Your task to perform on an android device: toggle pop-ups in chrome Image 0: 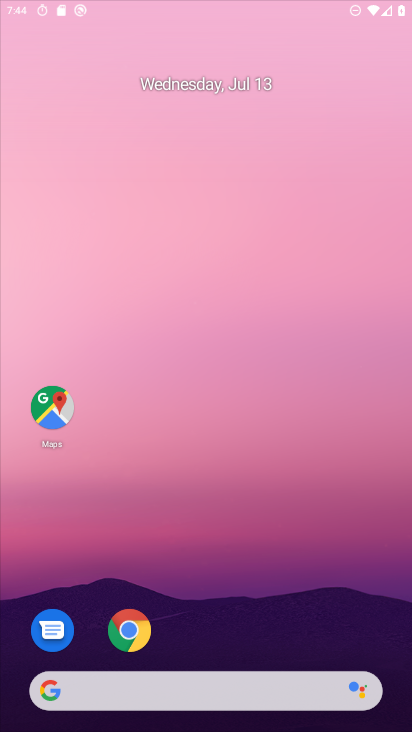
Step 0: click (256, 35)
Your task to perform on an android device: toggle pop-ups in chrome Image 1: 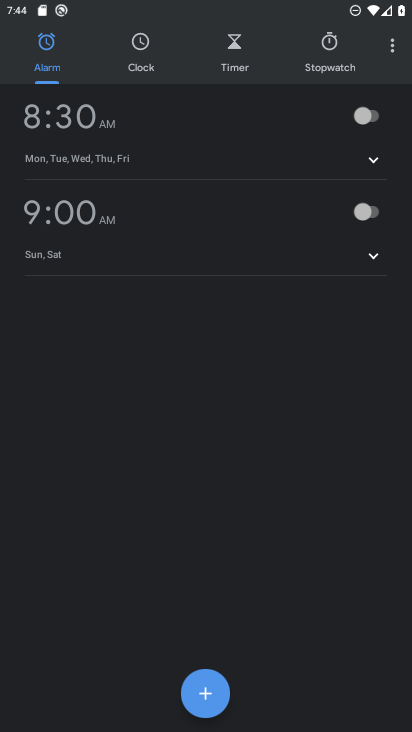
Step 1: press home button
Your task to perform on an android device: toggle pop-ups in chrome Image 2: 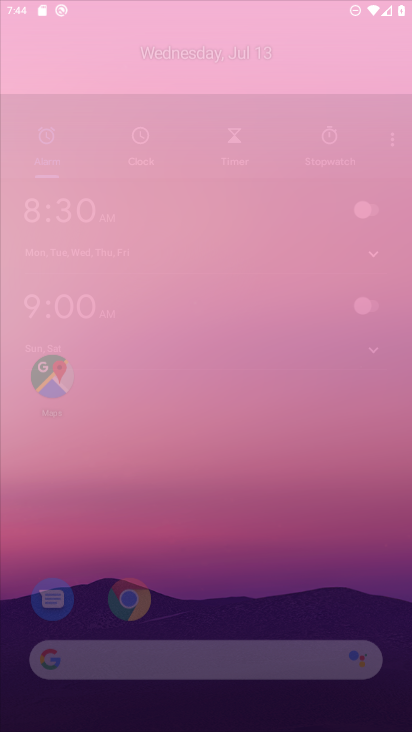
Step 2: drag from (375, 677) to (266, 38)
Your task to perform on an android device: toggle pop-ups in chrome Image 3: 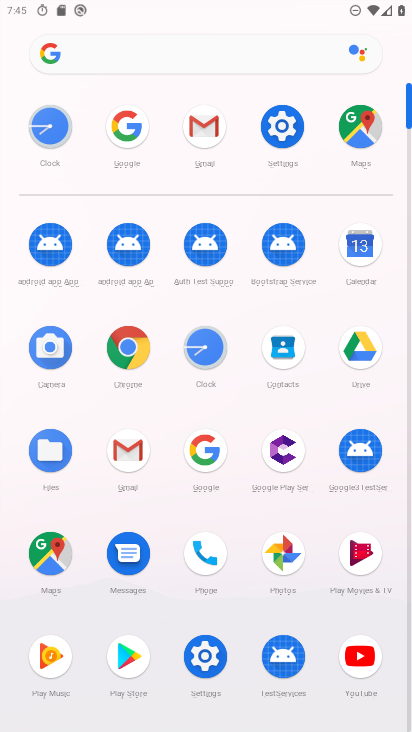
Step 3: click (122, 358)
Your task to perform on an android device: toggle pop-ups in chrome Image 4: 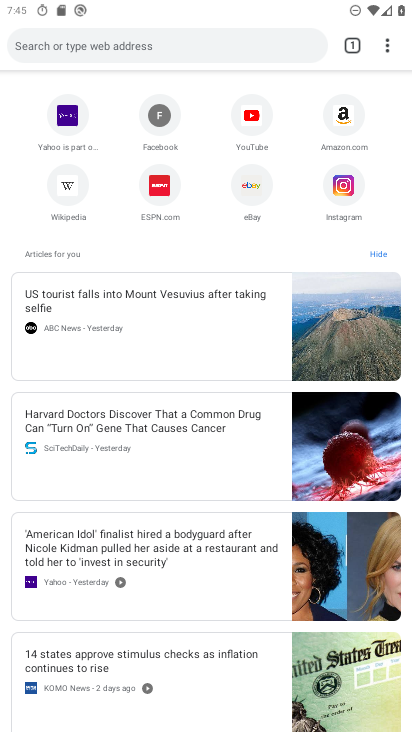
Step 4: click (387, 46)
Your task to perform on an android device: toggle pop-ups in chrome Image 5: 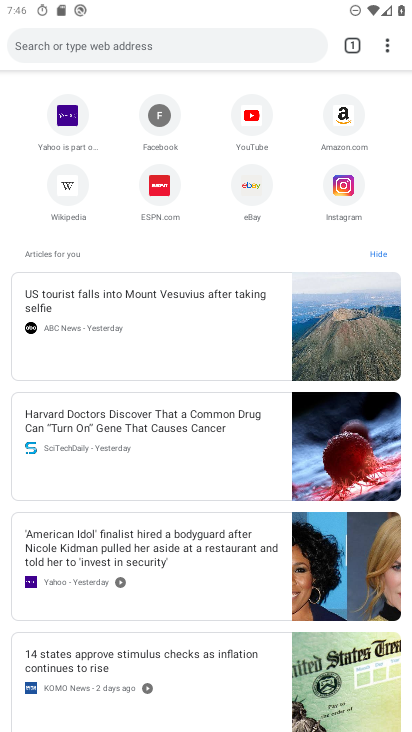
Step 5: click (387, 39)
Your task to perform on an android device: toggle pop-ups in chrome Image 6: 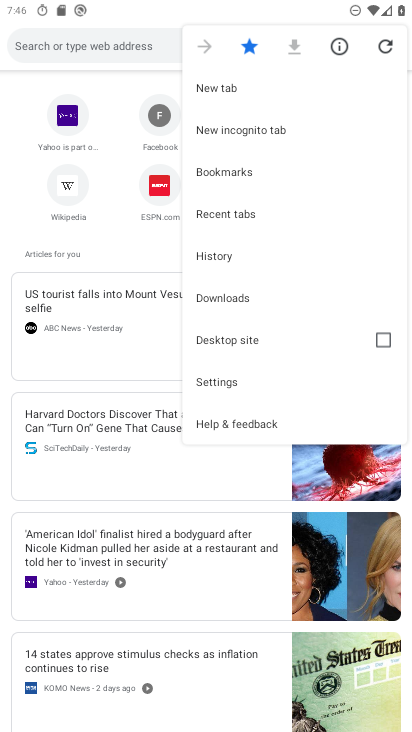
Step 6: click (231, 373)
Your task to perform on an android device: toggle pop-ups in chrome Image 7: 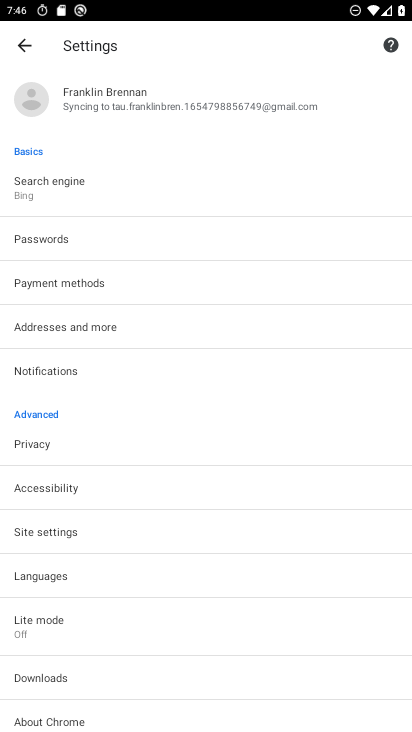
Step 7: click (67, 536)
Your task to perform on an android device: toggle pop-ups in chrome Image 8: 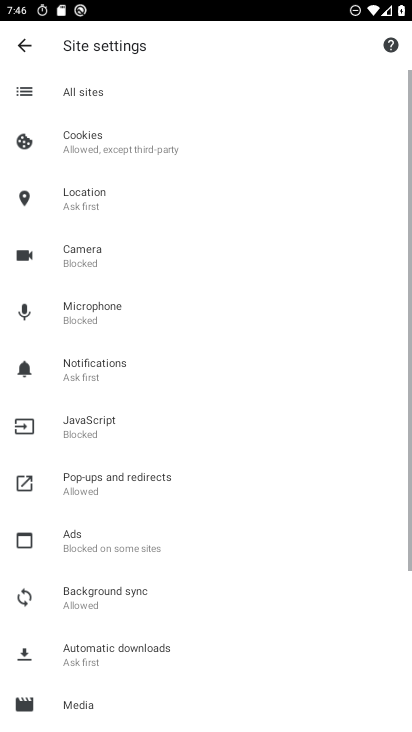
Step 8: click (93, 495)
Your task to perform on an android device: toggle pop-ups in chrome Image 9: 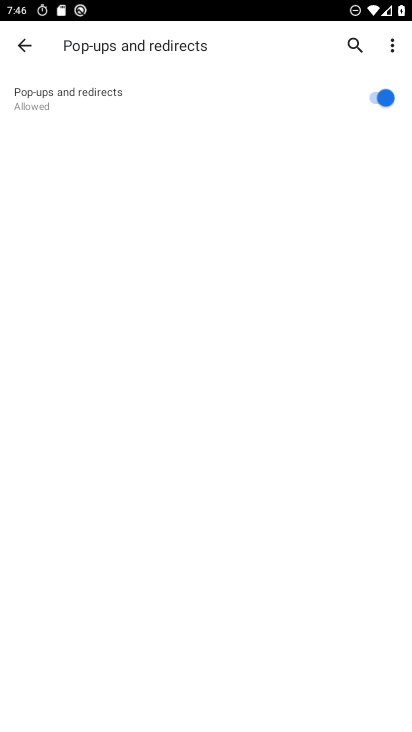
Step 9: click (373, 96)
Your task to perform on an android device: toggle pop-ups in chrome Image 10: 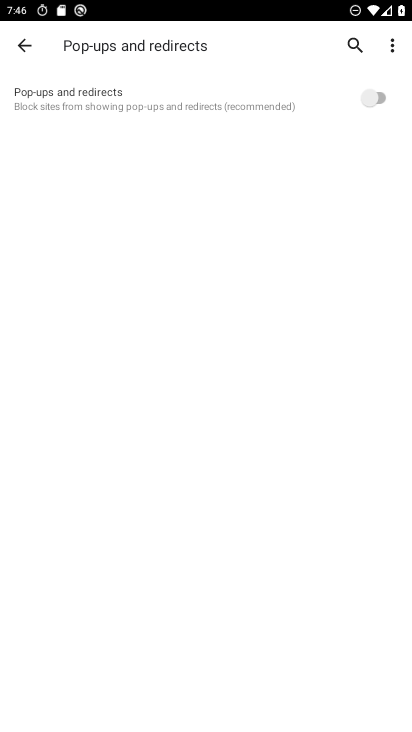
Step 10: task complete